Your task to perform on an android device: Open Google Maps and go to "Timeline" Image 0: 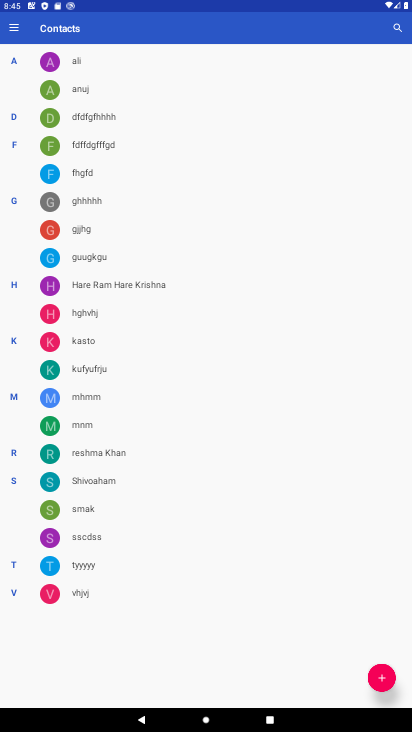
Step 0: press home button
Your task to perform on an android device: Open Google Maps and go to "Timeline" Image 1: 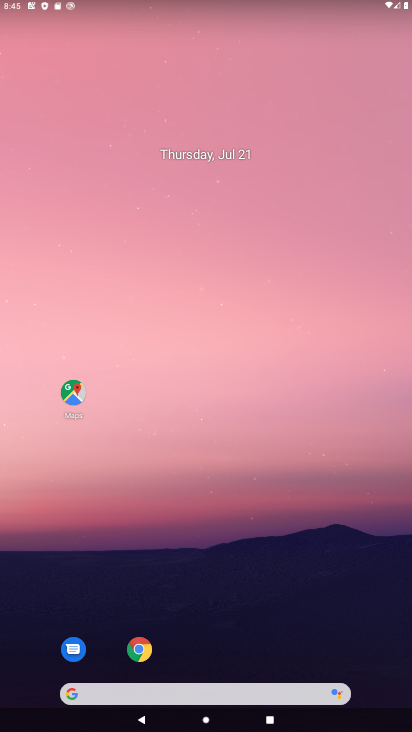
Step 1: drag from (271, 655) to (280, 41)
Your task to perform on an android device: Open Google Maps and go to "Timeline" Image 2: 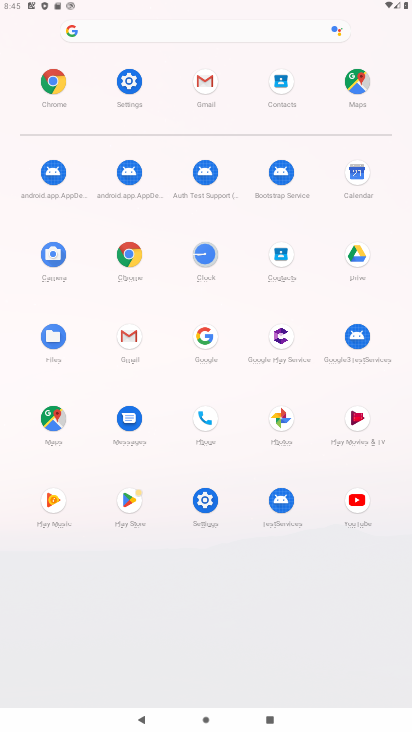
Step 2: click (54, 412)
Your task to perform on an android device: Open Google Maps and go to "Timeline" Image 3: 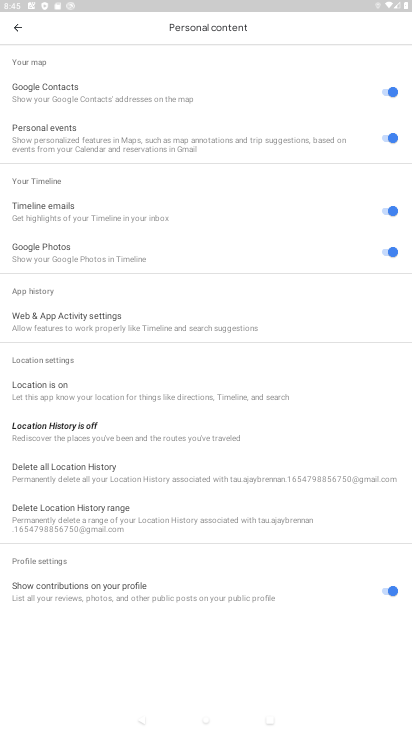
Step 3: click (25, 31)
Your task to perform on an android device: Open Google Maps and go to "Timeline" Image 4: 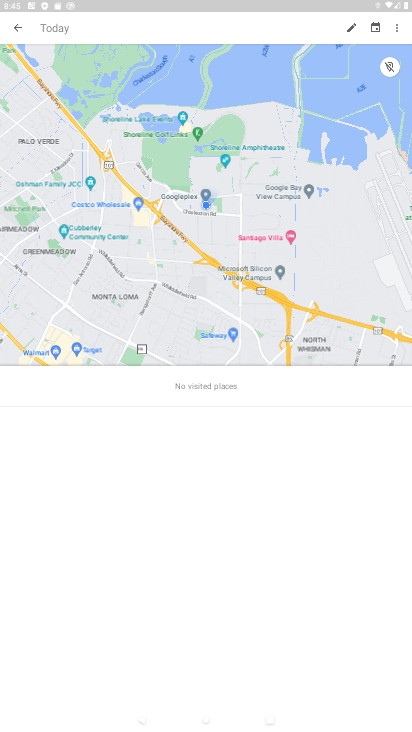
Step 4: task complete